Your task to perform on an android device: visit the assistant section in the google photos Image 0: 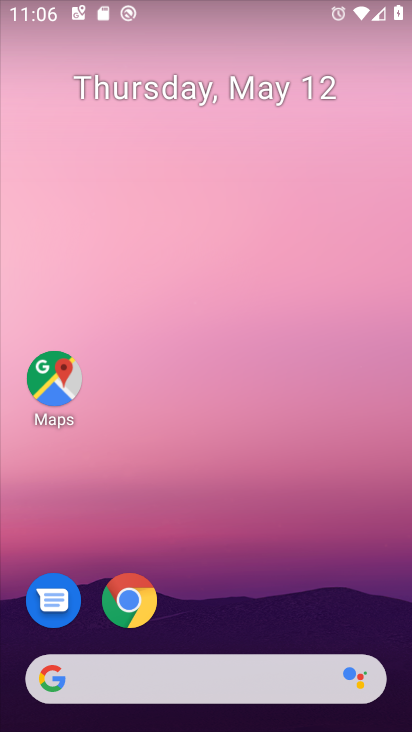
Step 0: drag from (208, 626) to (154, 300)
Your task to perform on an android device: visit the assistant section in the google photos Image 1: 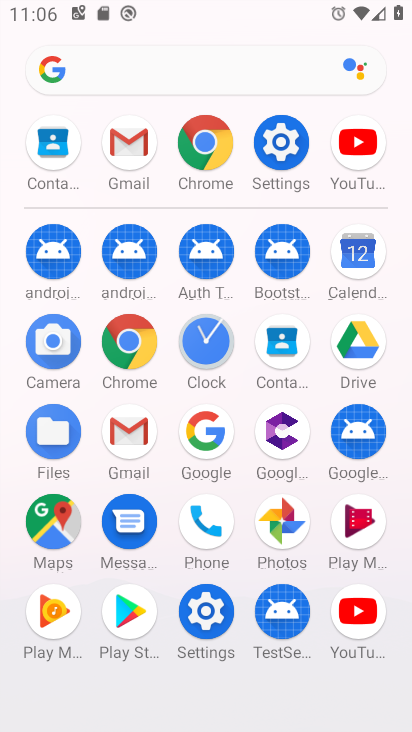
Step 1: click (289, 521)
Your task to perform on an android device: visit the assistant section in the google photos Image 2: 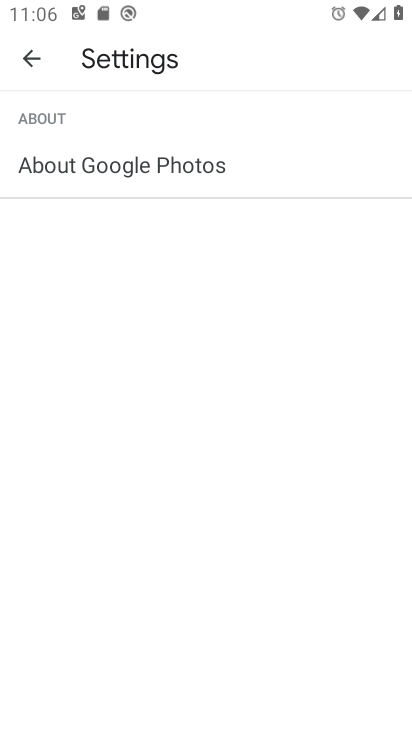
Step 2: press back button
Your task to perform on an android device: visit the assistant section in the google photos Image 3: 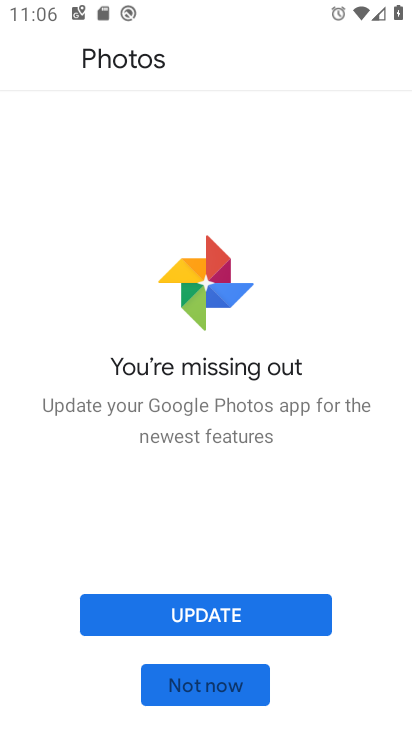
Step 3: click (231, 693)
Your task to perform on an android device: visit the assistant section in the google photos Image 4: 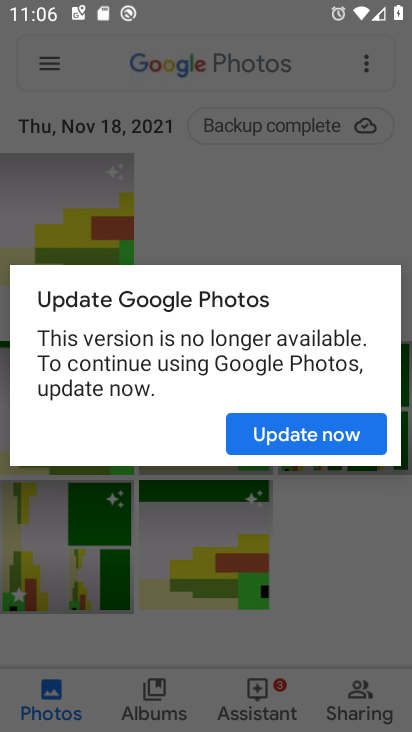
Step 4: click (323, 422)
Your task to perform on an android device: visit the assistant section in the google photos Image 5: 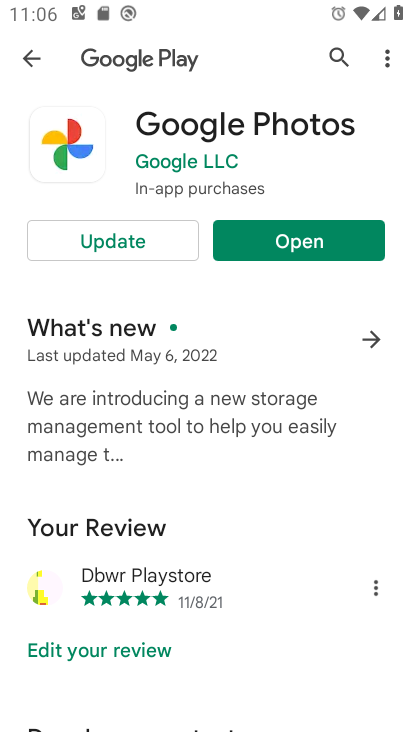
Step 5: press back button
Your task to perform on an android device: visit the assistant section in the google photos Image 6: 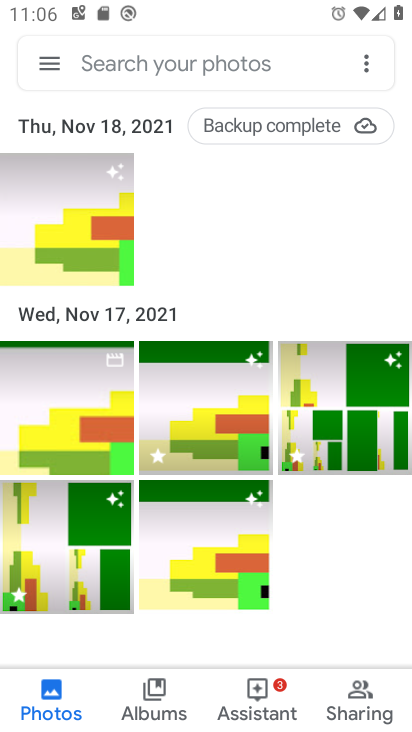
Step 6: click (248, 705)
Your task to perform on an android device: visit the assistant section in the google photos Image 7: 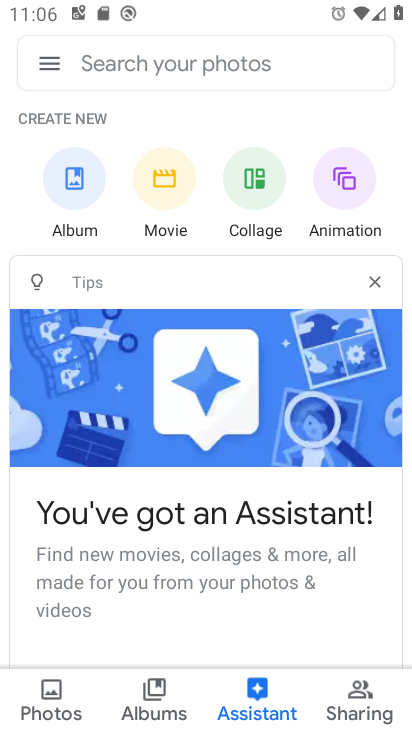
Step 7: task complete